Your task to perform on an android device: remove spam from my inbox in the gmail app Image 0: 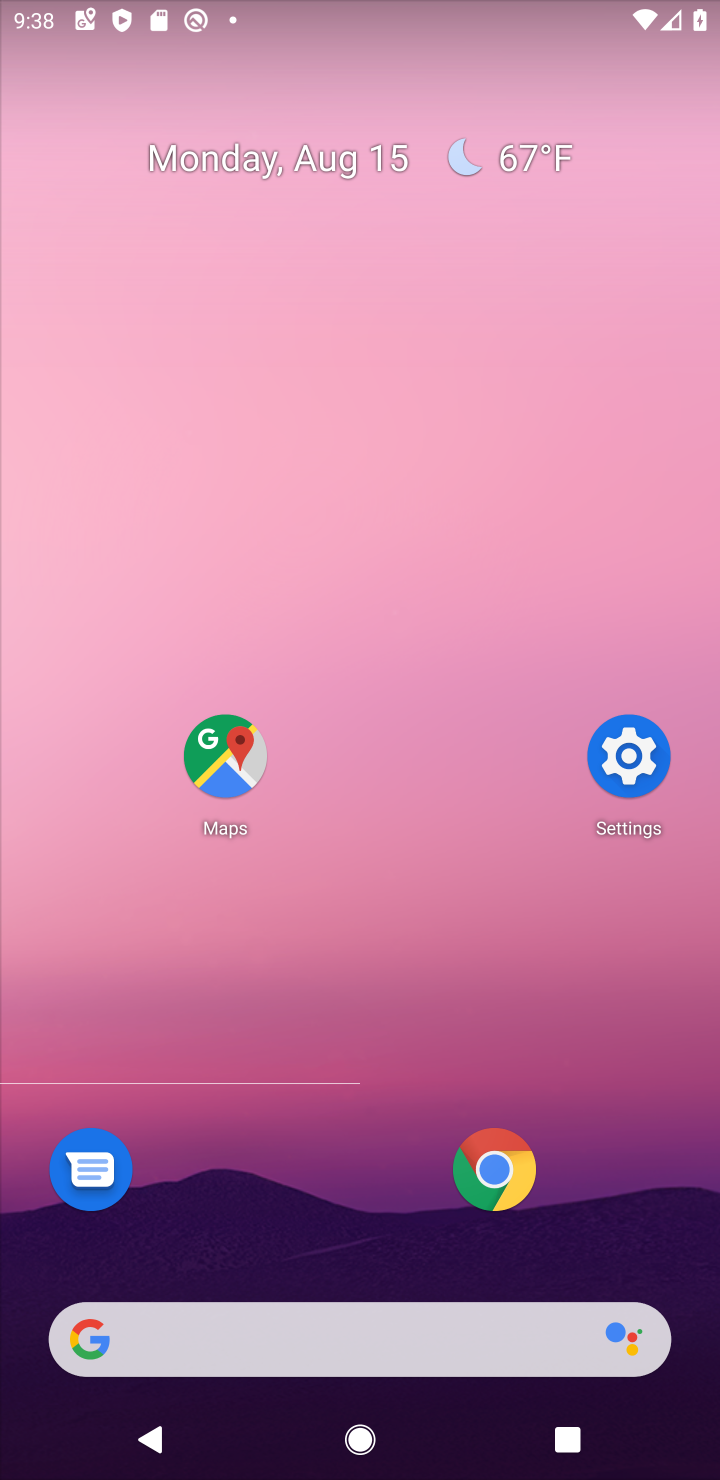
Step 0: press home button
Your task to perform on an android device: remove spam from my inbox in the gmail app Image 1: 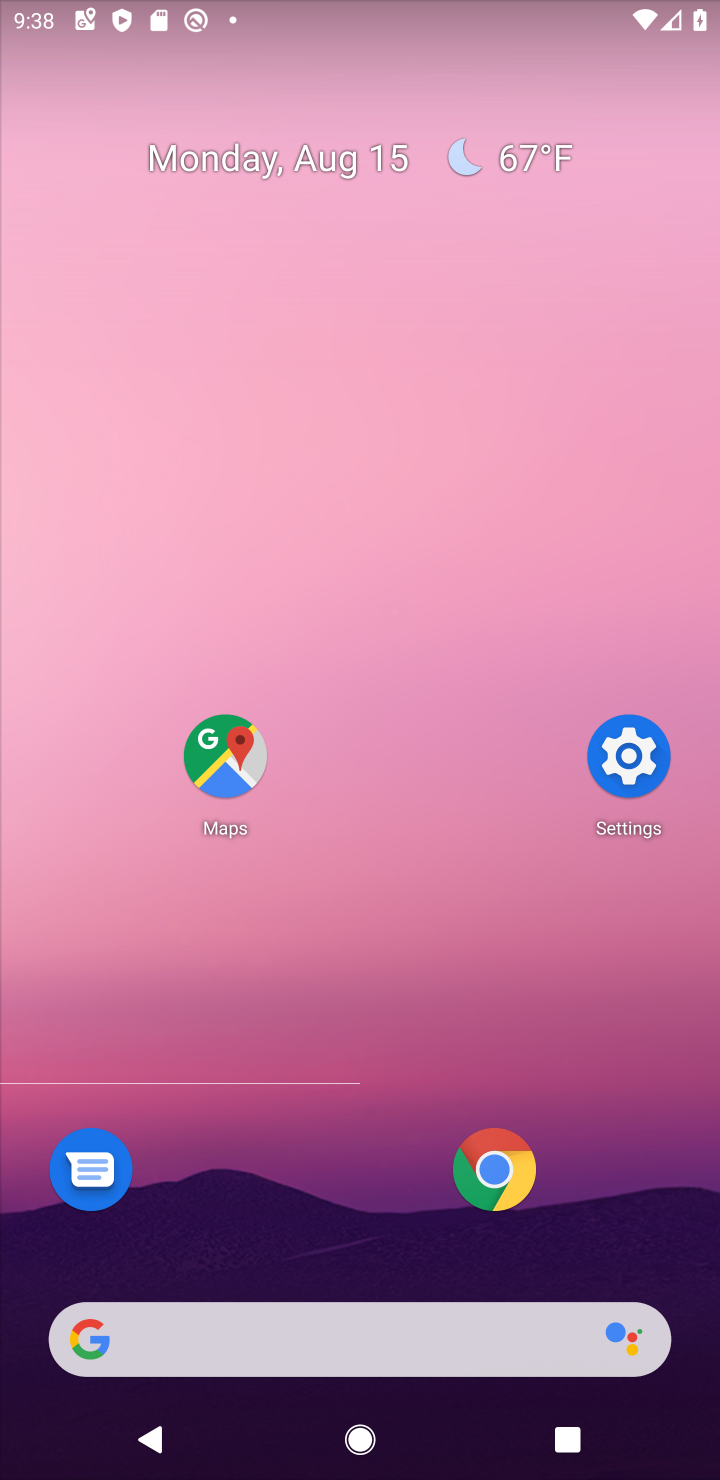
Step 1: drag from (322, 1342) to (700, 458)
Your task to perform on an android device: remove spam from my inbox in the gmail app Image 2: 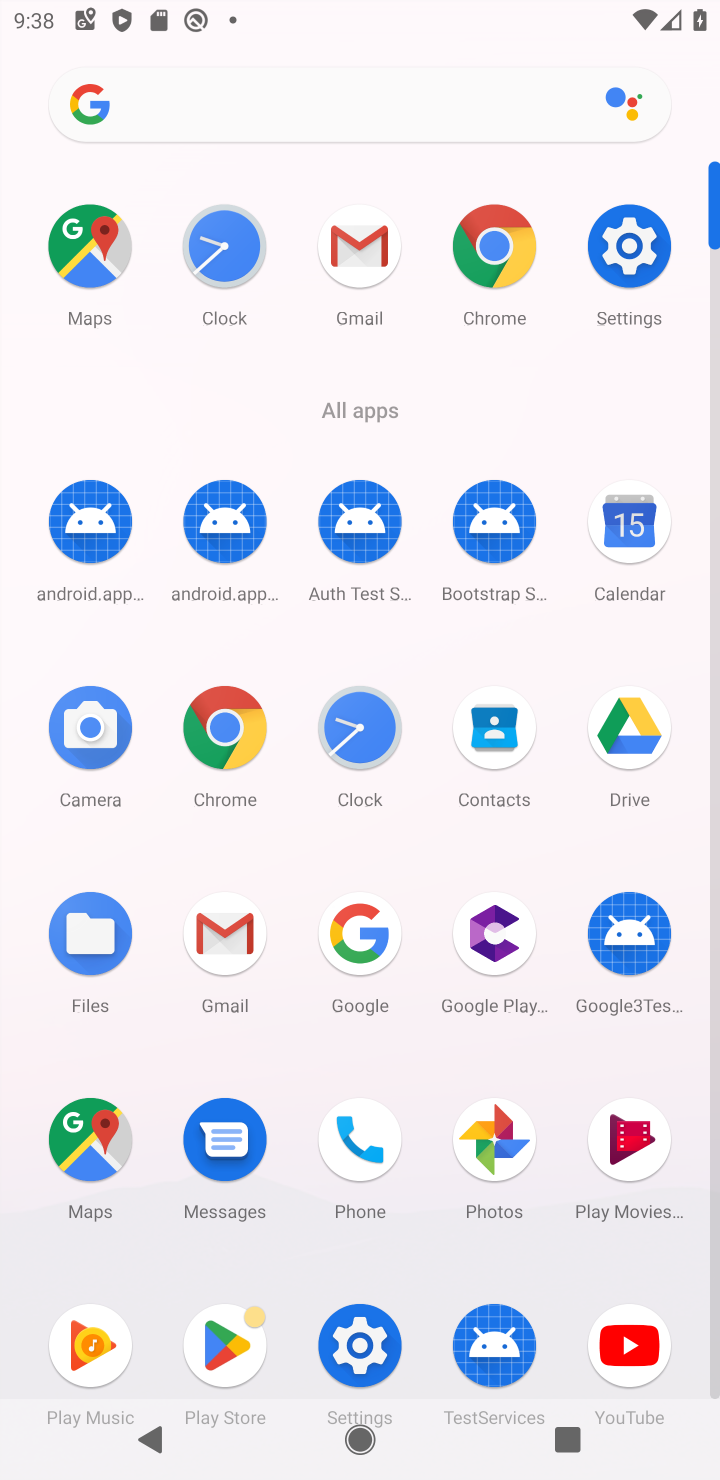
Step 2: click (359, 257)
Your task to perform on an android device: remove spam from my inbox in the gmail app Image 3: 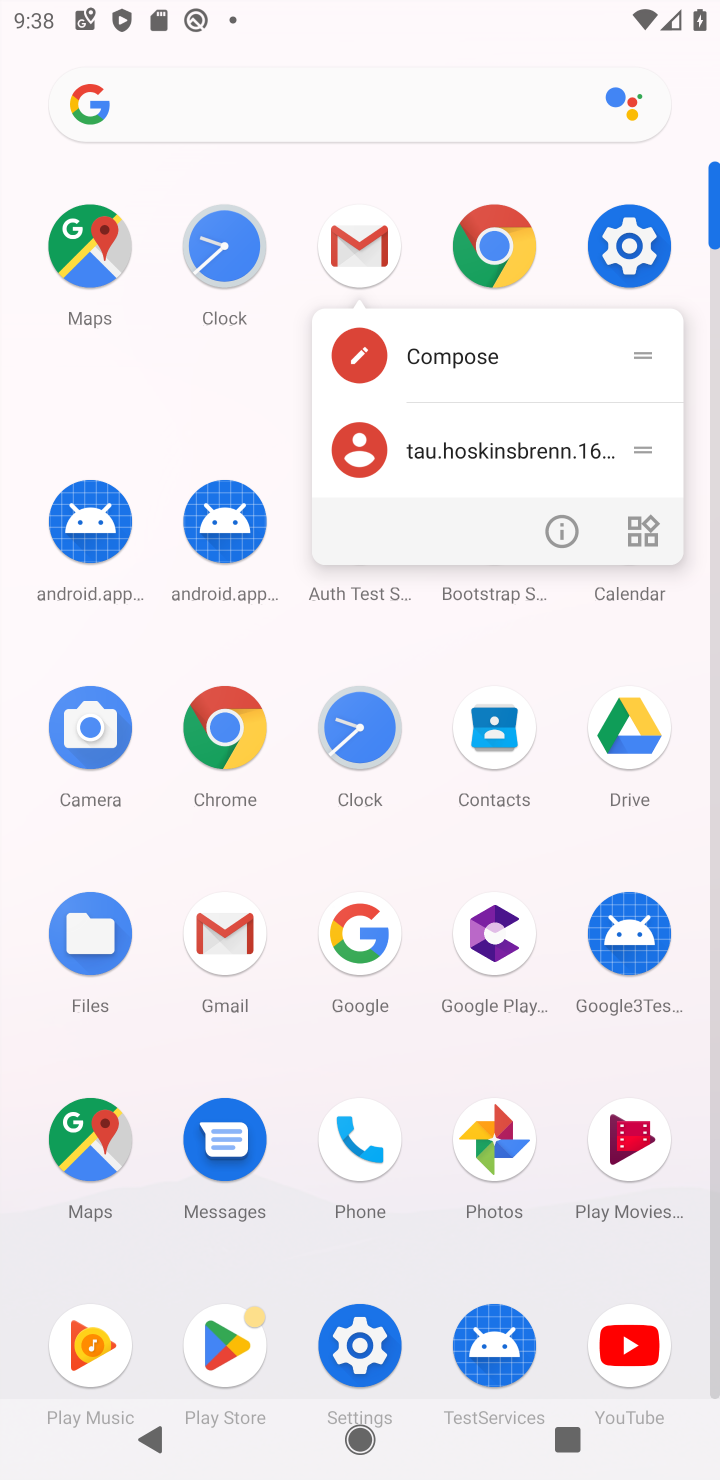
Step 3: click (359, 261)
Your task to perform on an android device: remove spam from my inbox in the gmail app Image 4: 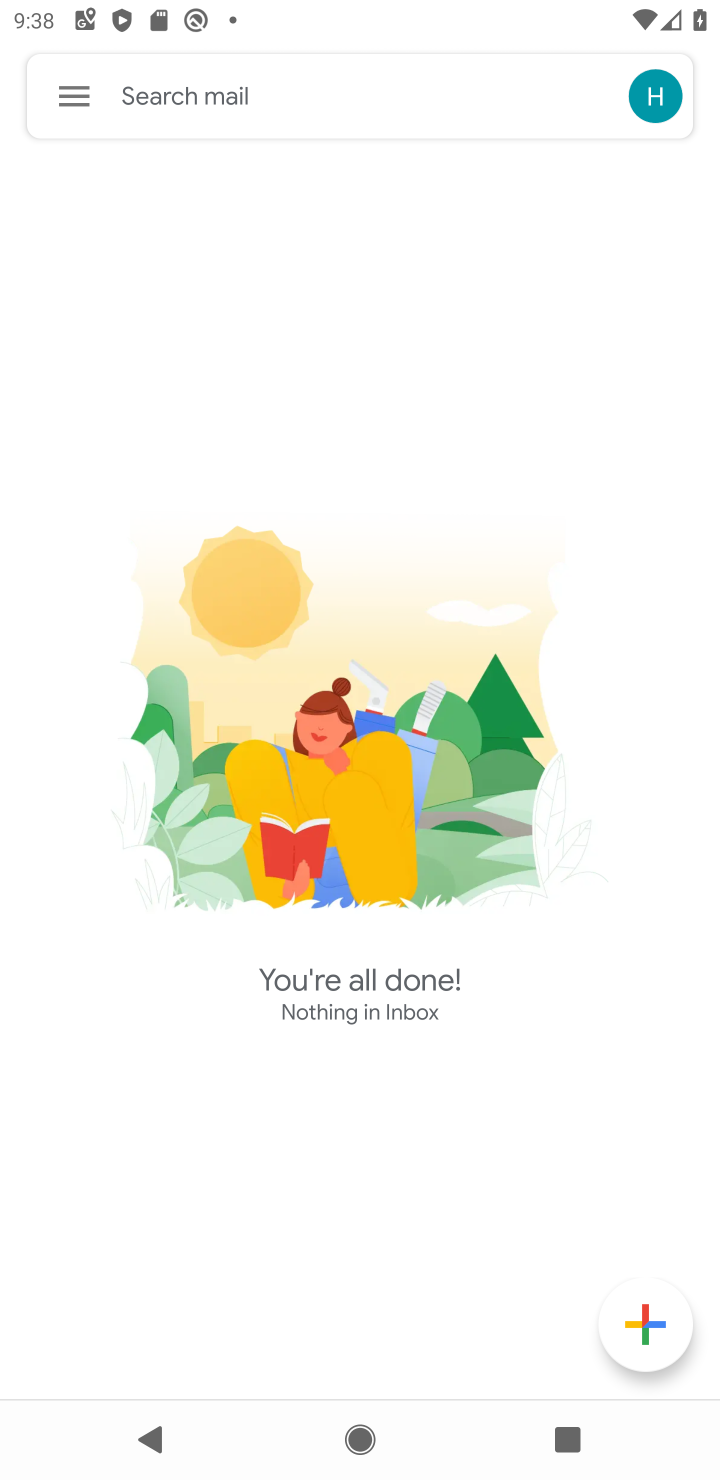
Step 4: click (62, 90)
Your task to perform on an android device: remove spam from my inbox in the gmail app Image 5: 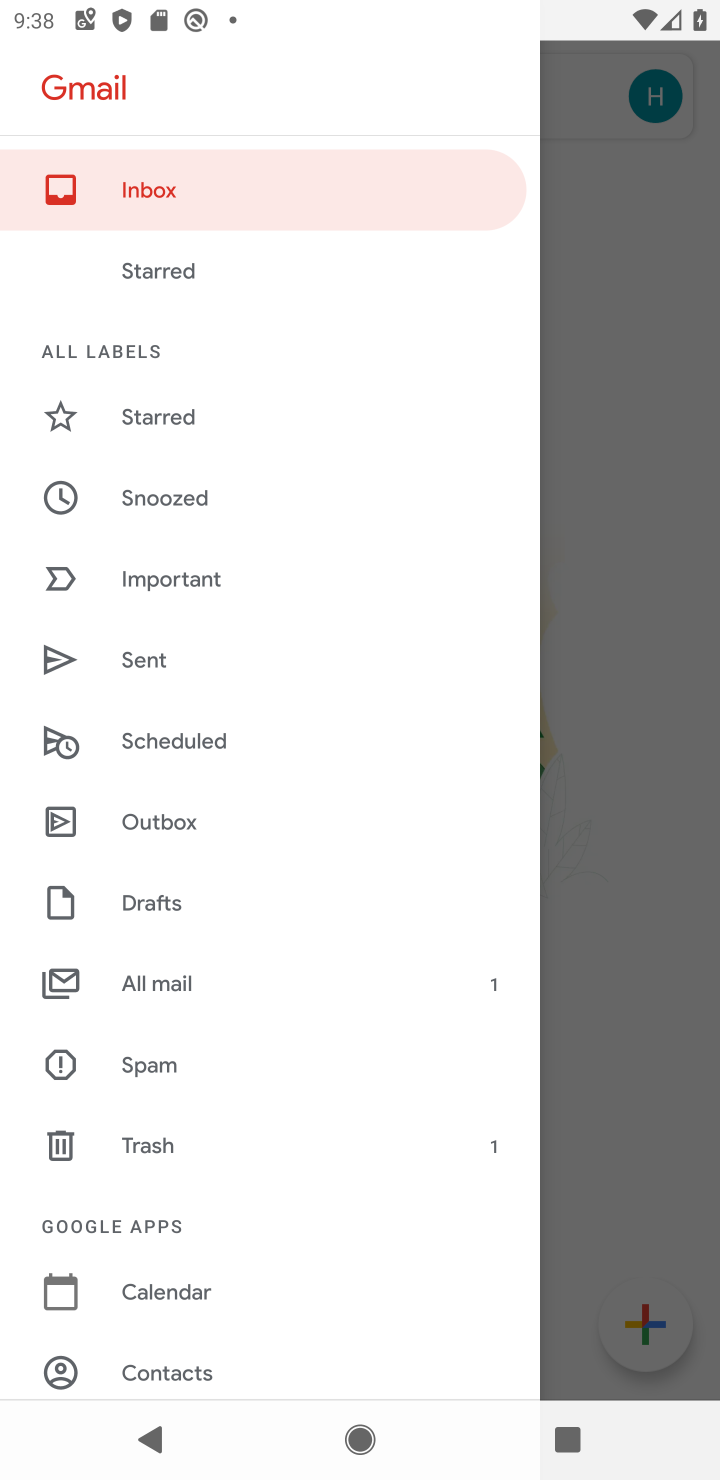
Step 5: click (158, 1059)
Your task to perform on an android device: remove spam from my inbox in the gmail app Image 6: 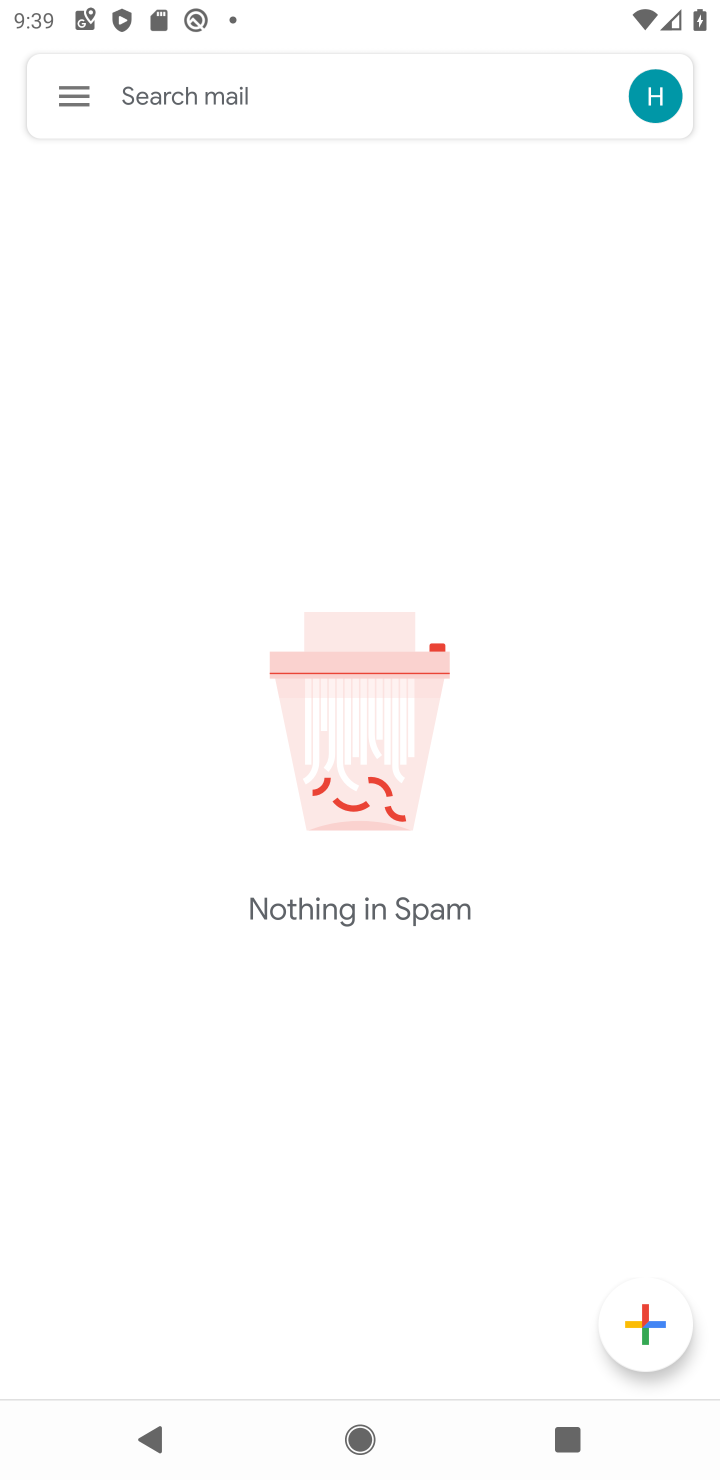
Step 6: task complete